Your task to perform on an android device: Go to Reddit.com Image 0: 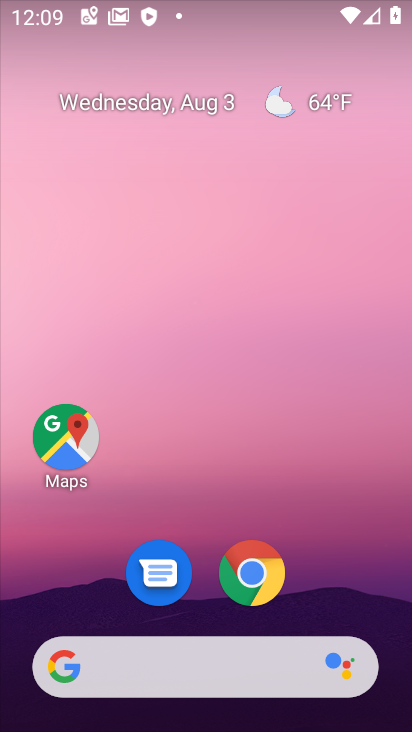
Step 0: drag from (210, 574) to (248, 207)
Your task to perform on an android device: Go to Reddit.com Image 1: 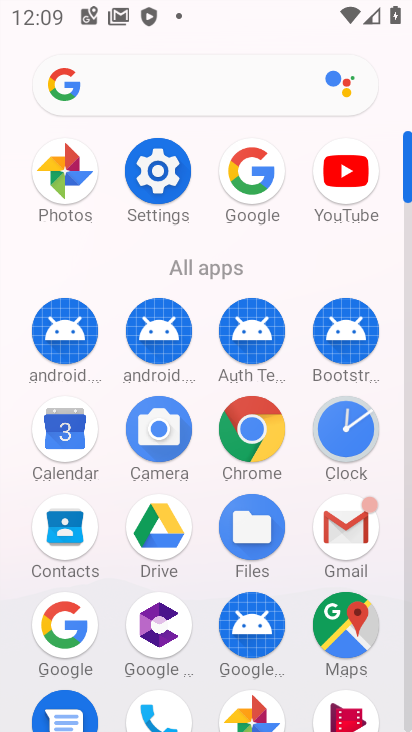
Step 1: click (173, 66)
Your task to perform on an android device: Go to Reddit.com Image 2: 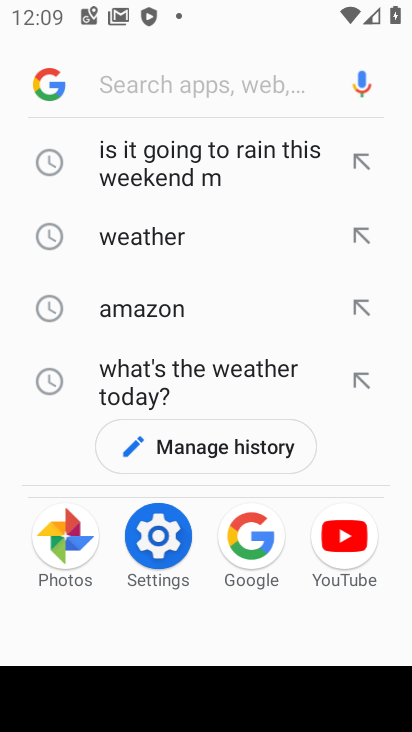
Step 2: type "Reddit.com"
Your task to perform on an android device: Go to Reddit.com Image 3: 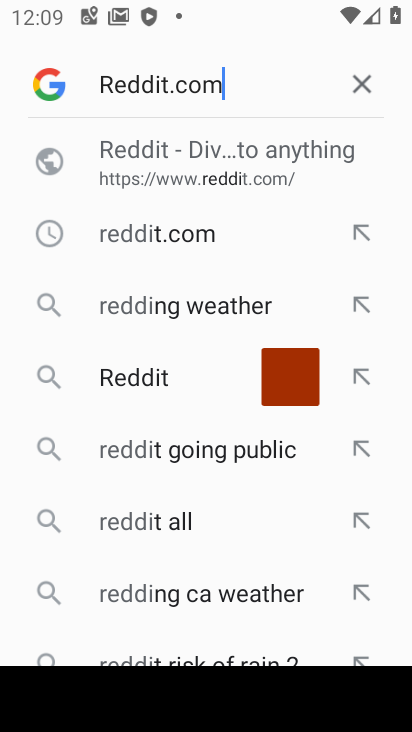
Step 3: type ""
Your task to perform on an android device: Go to Reddit.com Image 4: 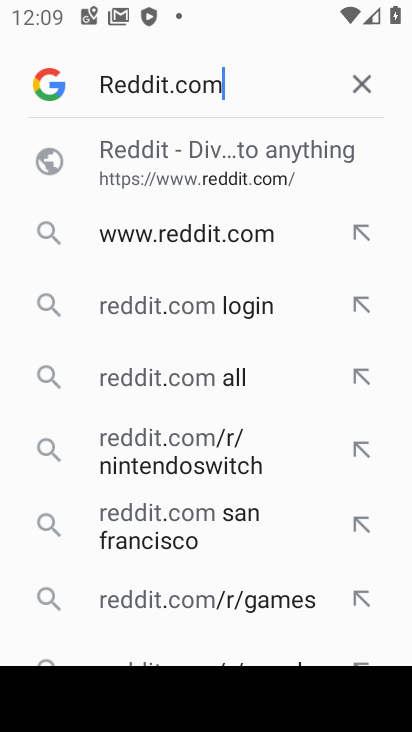
Step 4: click (134, 151)
Your task to perform on an android device: Go to Reddit.com Image 5: 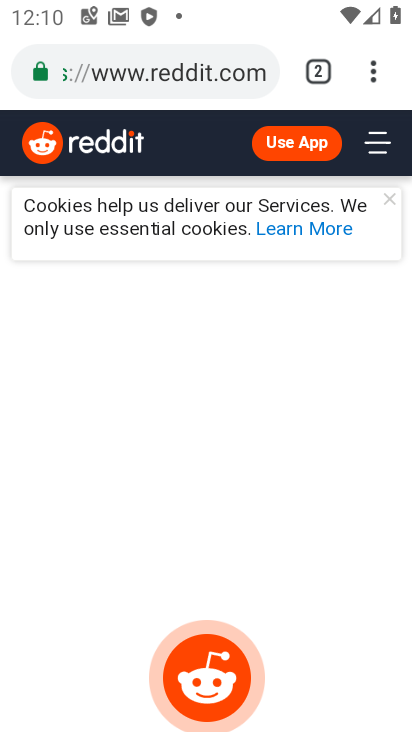
Step 5: task complete